Your task to perform on an android device: turn off sleep mode Image 0: 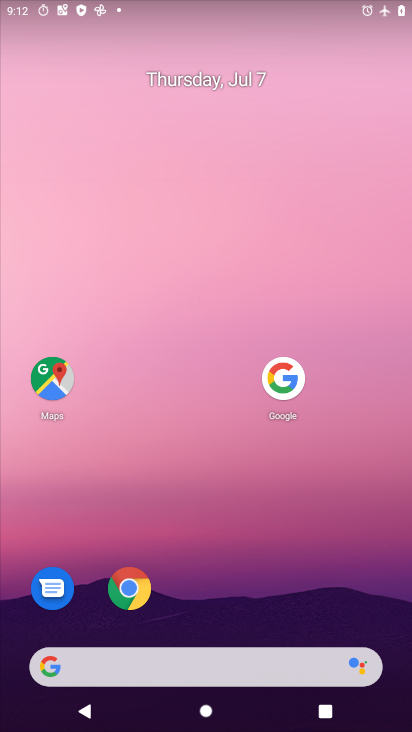
Step 0: drag from (215, 663) to (319, 83)
Your task to perform on an android device: turn off sleep mode Image 1: 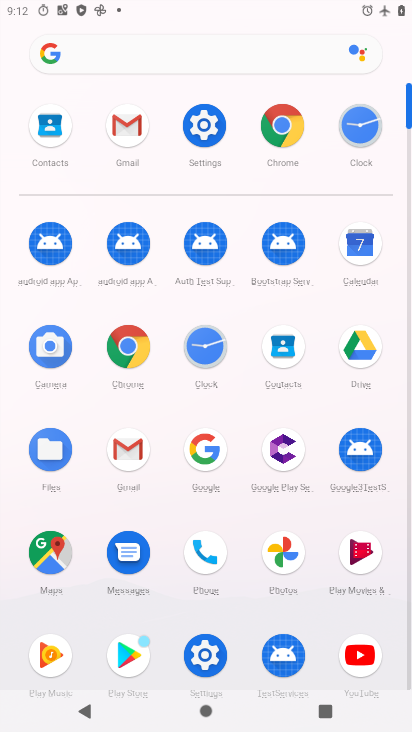
Step 1: click (199, 126)
Your task to perform on an android device: turn off sleep mode Image 2: 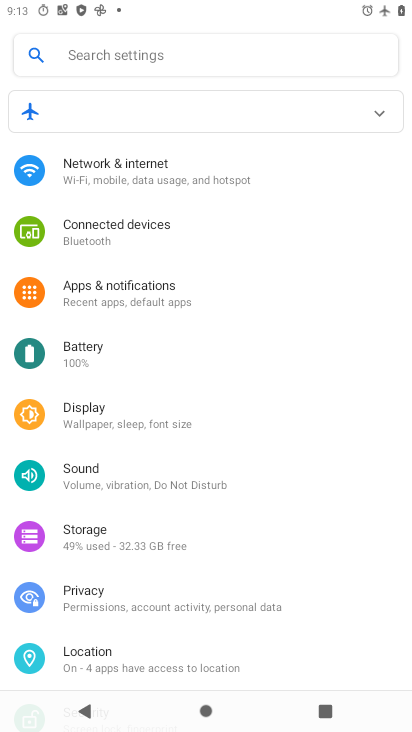
Step 2: click (110, 413)
Your task to perform on an android device: turn off sleep mode Image 3: 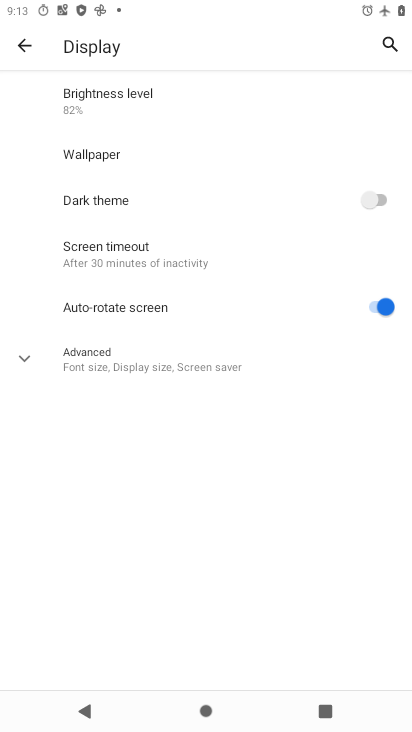
Step 3: click (126, 367)
Your task to perform on an android device: turn off sleep mode Image 4: 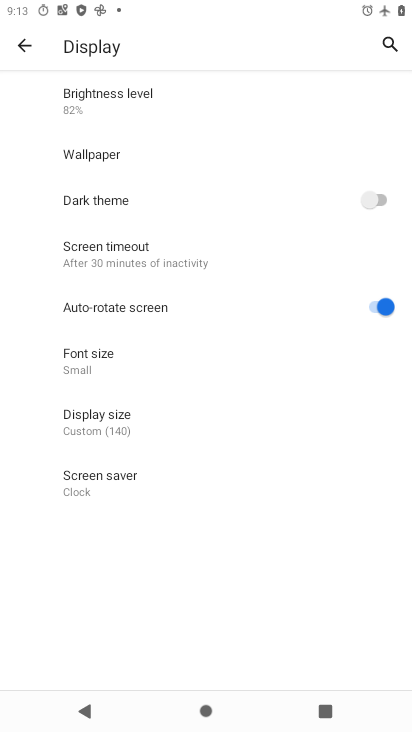
Step 4: task complete